Your task to perform on an android device: What's on my calendar today? Image 0: 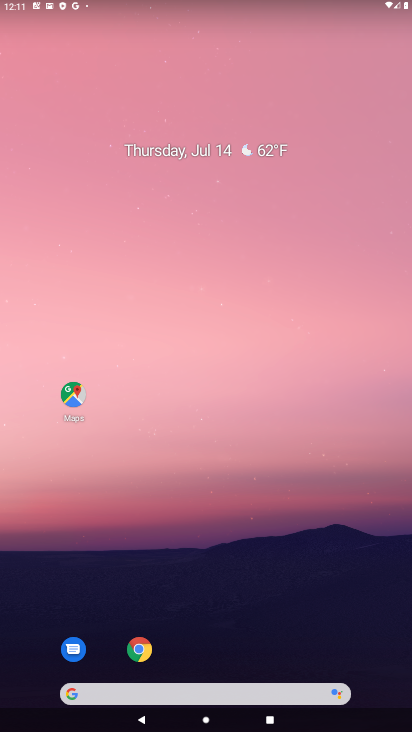
Step 0: drag from (388, 670) to (241, 64)
Your task to perform on an android device: What's on my calendar today? Image 1: 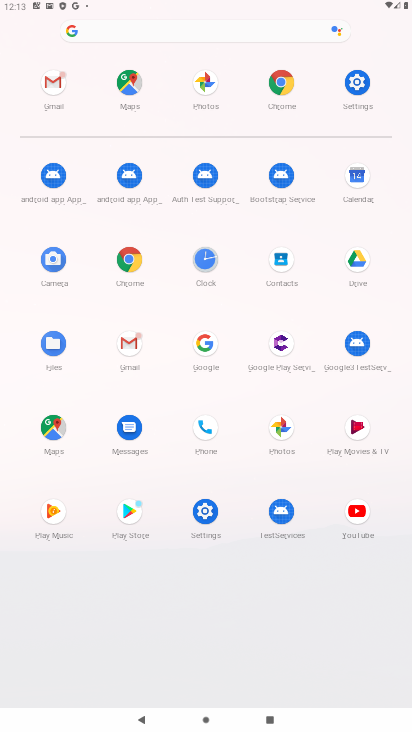
Step 1: click (348, 187)
Your task to perform on an android device: What's on my calendar today? Image 2: 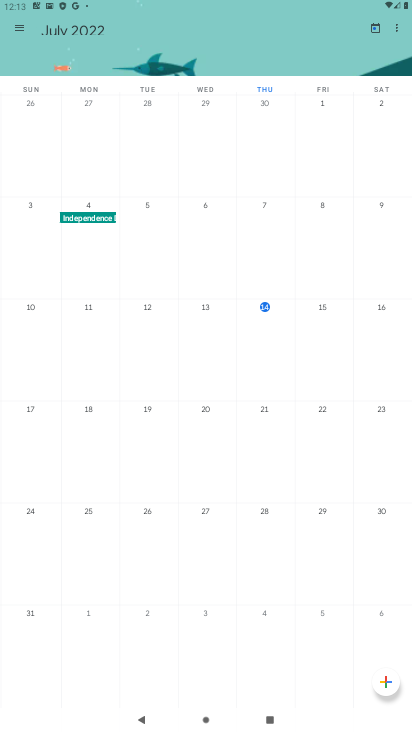
Step 2: task complete